Your task to perform on an android device: What's the weather today? Image 0: 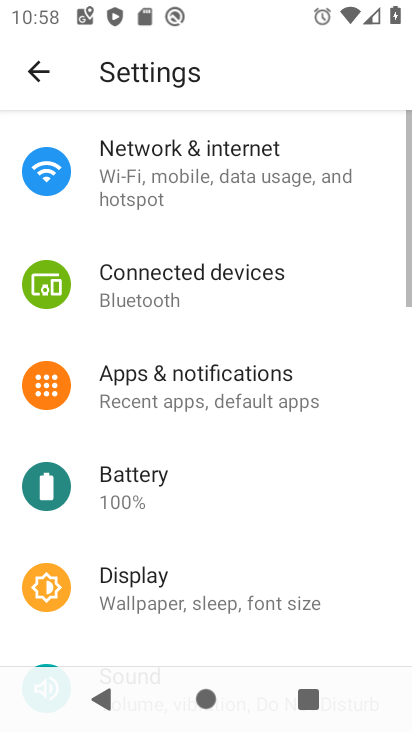
Step 0: press home button
Your task to perform on an android device: What's the weather today? Image 1: 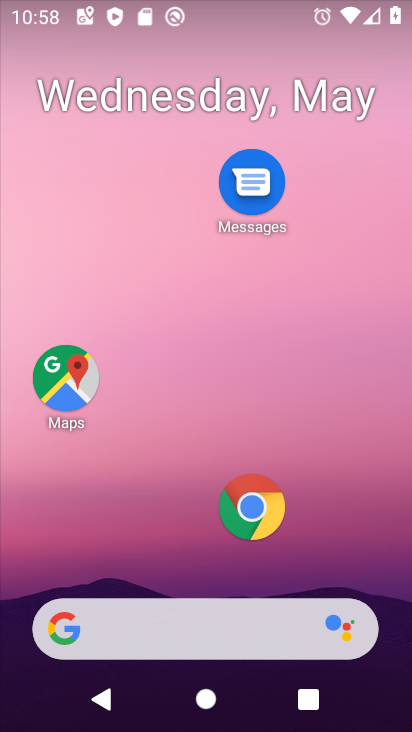
Step 1: drag from (5, 264) to (395, 285)
Your task to perform on an android device: What's the weather today? Image 2: 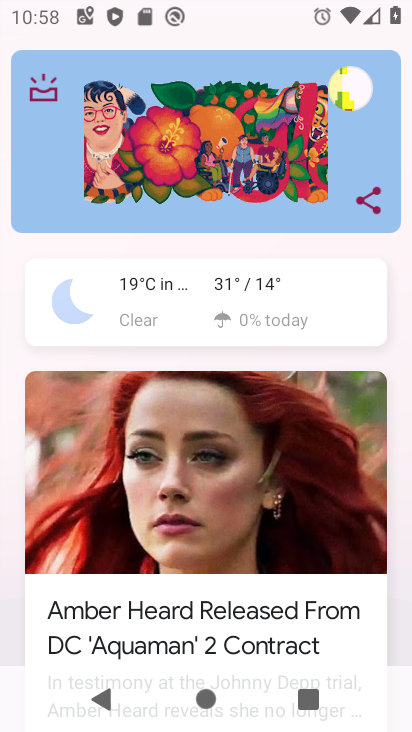
Step 2: click (242, 293)
Your task to perform on an android device: What's the weather today? Image 3: 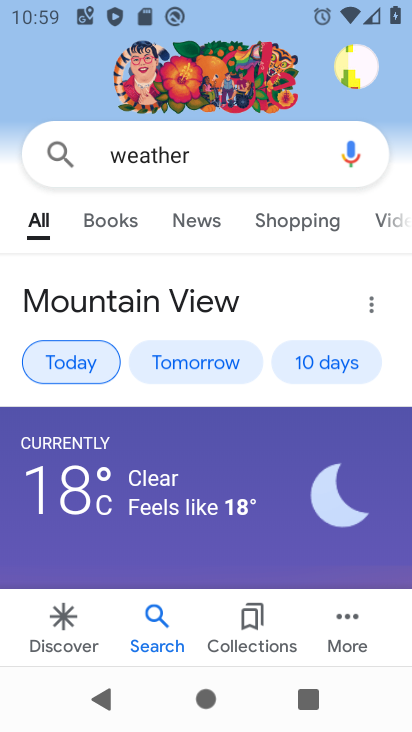
Step 3: drag from (205, 566) to (228, 196)
Your task to perform on an android device: What's the weather today? Image 4: 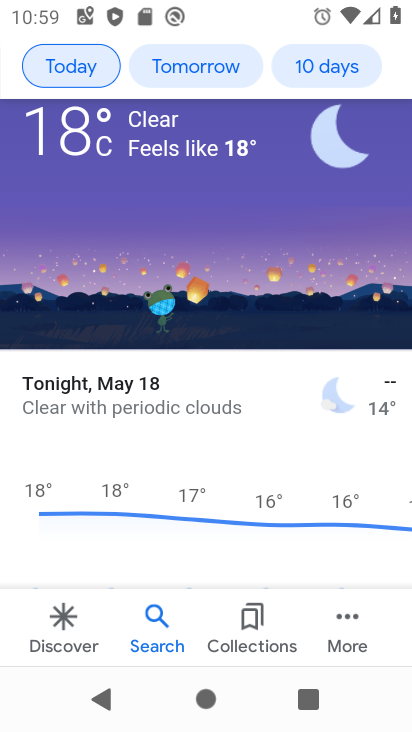
Step 4: drag from (233, 494) to (252, 253)
Your task to perform on an android device: What's the weather today? Image 5: 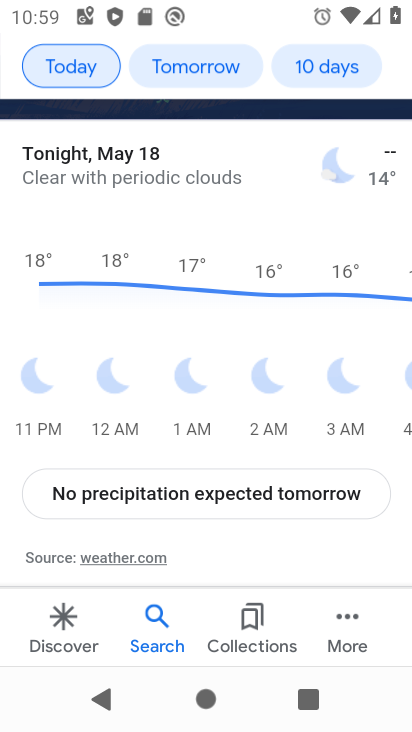
Step 5: drag from (346, 385) to (276, 379)
Your task to perform on an android device: What's the weather today? Image 6: 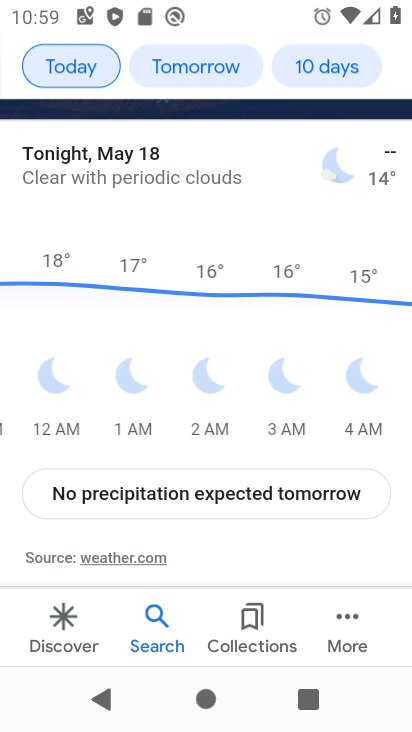
Step 6: drag from (83, 374) to (33, 375)
Your task to perform on an android device: What's the weather today? Image 7: 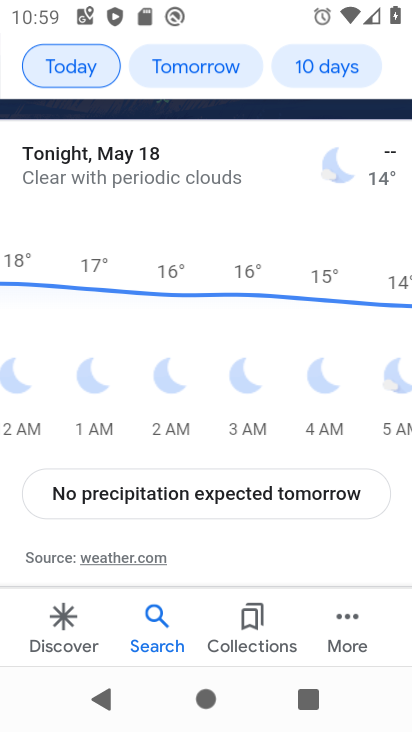
Step 7: click (14, 375)
Your task to perform on an android device: What's the weather today? Image 8: 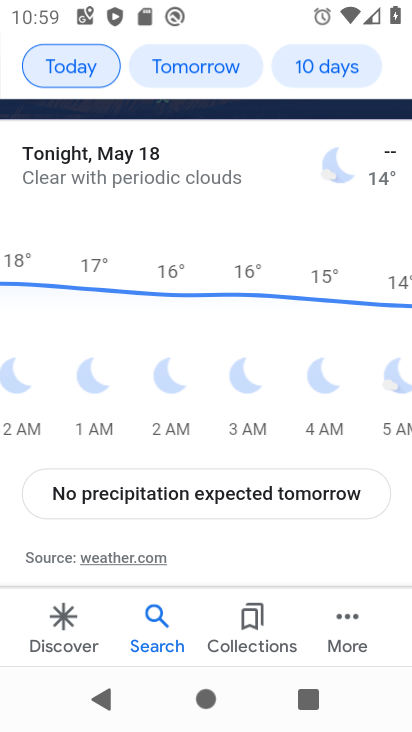
Step 8: drag from (394, 376) to (288, 390)
Your task to perform on an android device: What's the weather today? Image 9: 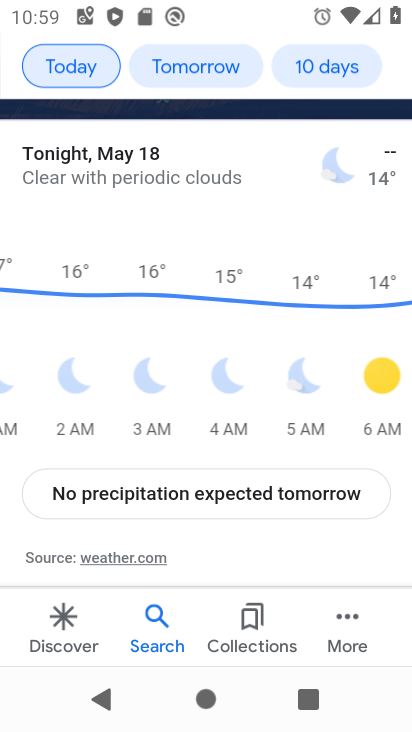
Step 9: click (64, 386)
Your task to perform on an android device: What's the weather today? Image 10: 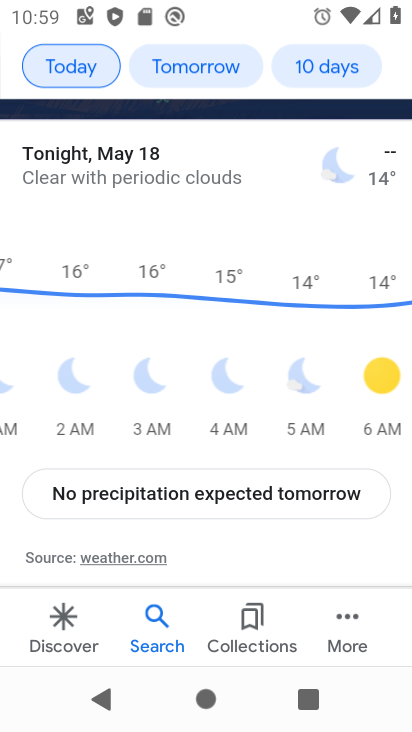
Step 10: task complete